Your task to perform on an android device: What's the weather? Image 0: 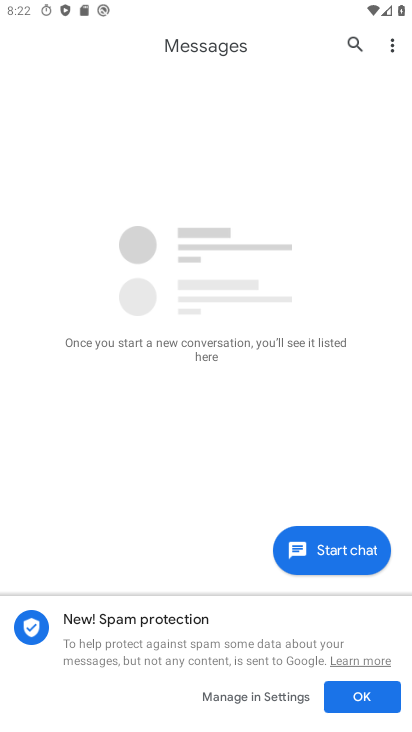
Step 0: press home button
Your task to perform on an android device: What's the weather? Image 1: 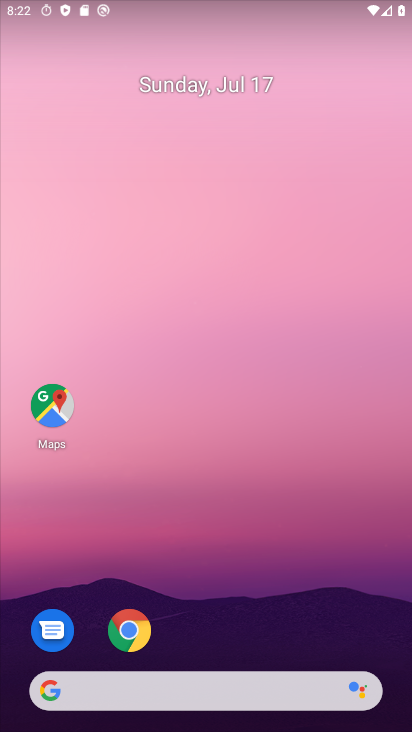
Step 1: click (107, 700)
Your task to perform on an android device: What's the weather? Image 2: 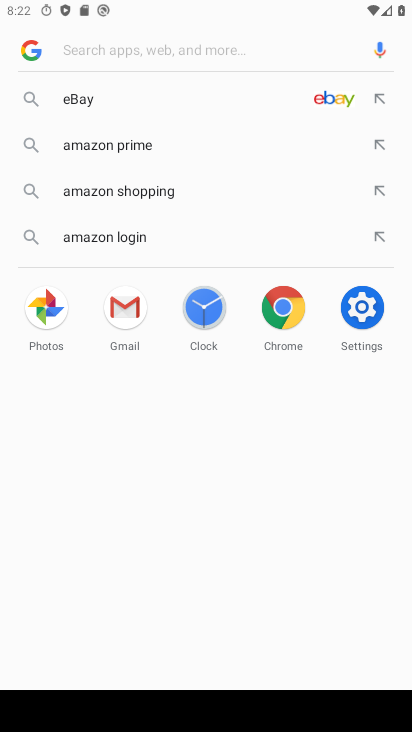
Step 2: type "What's the weather?"
Your task to perform on an android device: What's the weather? Image 3: 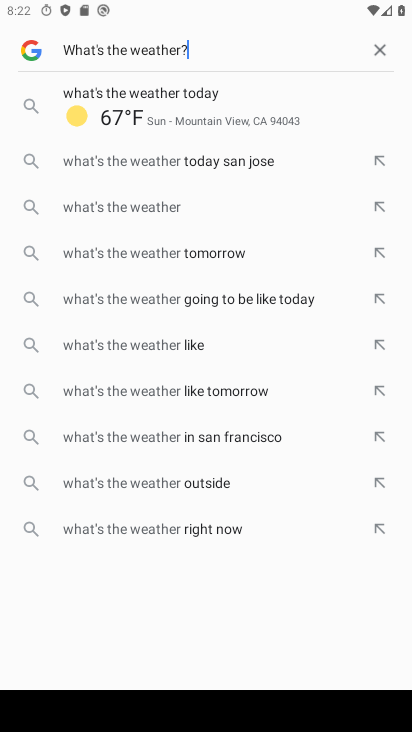
Step 3: type ""
Your task to perform on an android device: What's the weather? Image 4: 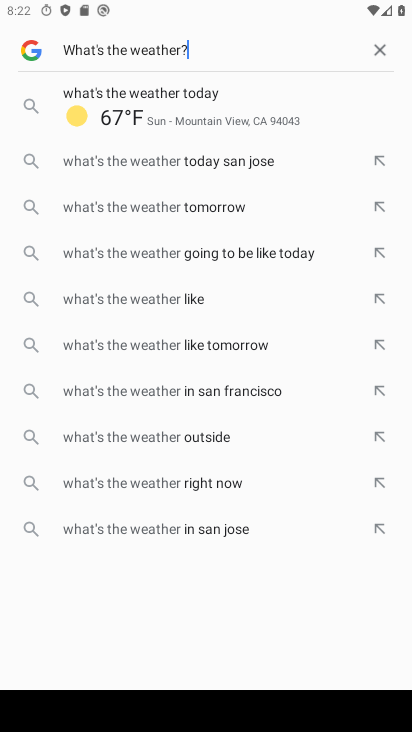
Step 4: task complete